Your task to perform on an android device: turn off sleep mode Image 0: 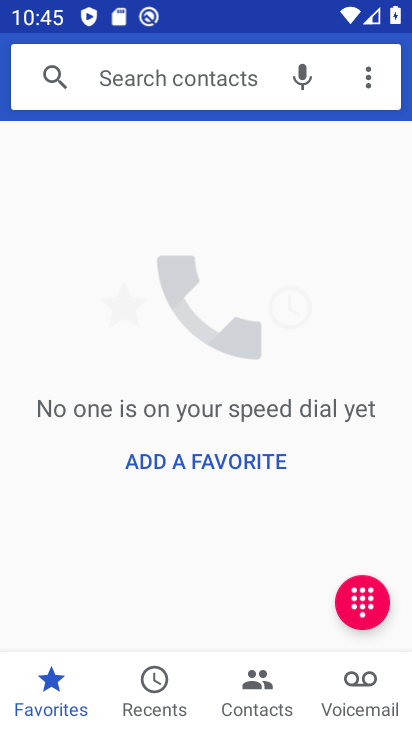
Step 0: press home button
Your task to perform on an android device: turn off sleep mode Image 1: 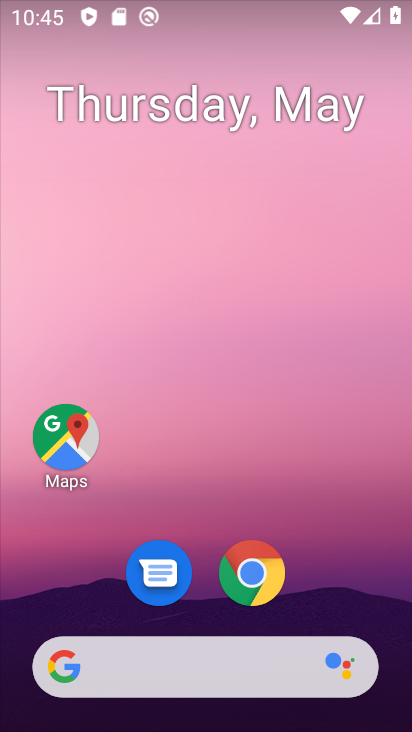
Step 1: drag from (74, 627) to (200, 158)
Your task to perform on an android device: turn off sleep mode Image 2: 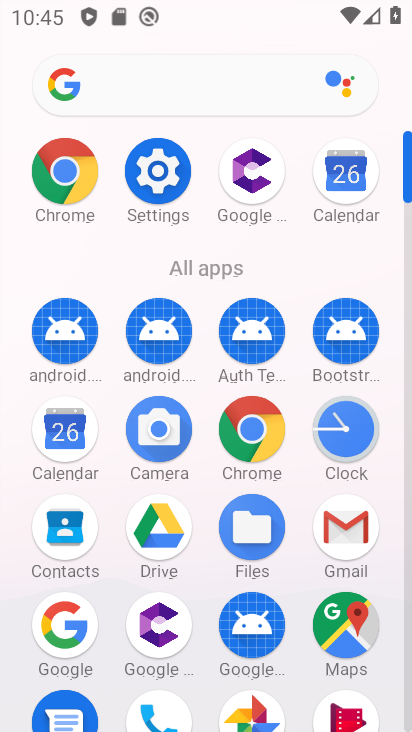
Step 2: drag from (119, 605) to (186, 379)
Your task to perform on an android device: turn off sleep mode Image 3: 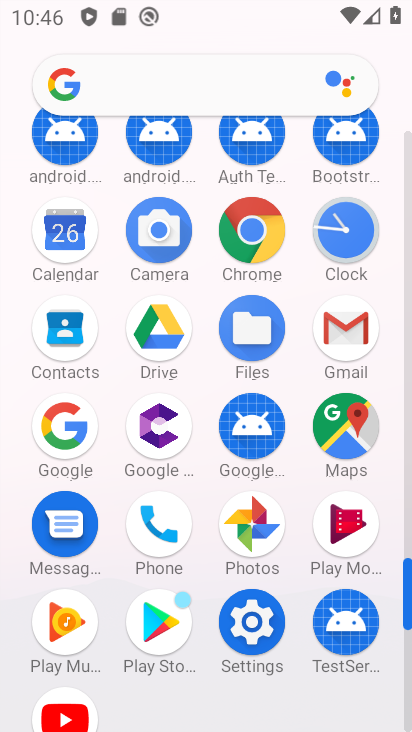
Step 3: click (262, 629)
Your task to perform on an android device: turn off sleep mode Image 4: 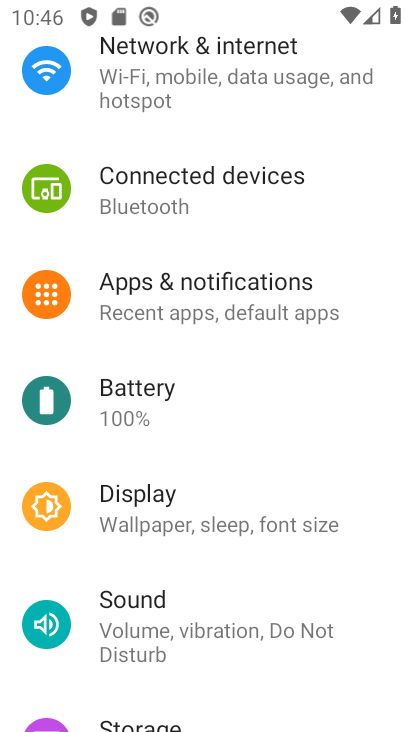
Step 4: click (155, 528)
Your task to perform on an android device: turn off sleep mode Image 5: 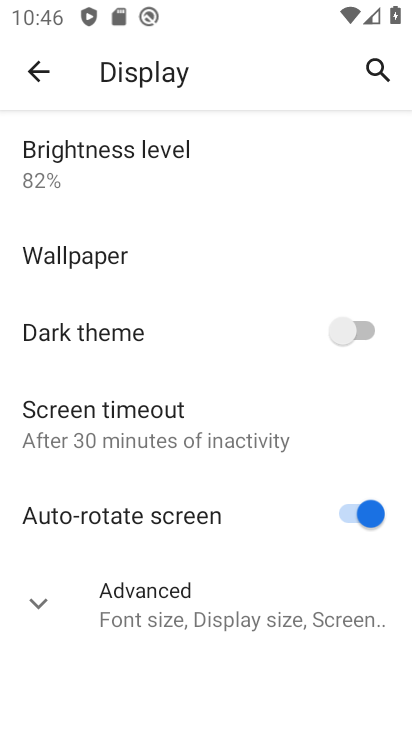
Step 5: click (155, 628)
Your task to perform on an android device: turn off sleep mode Image 6: 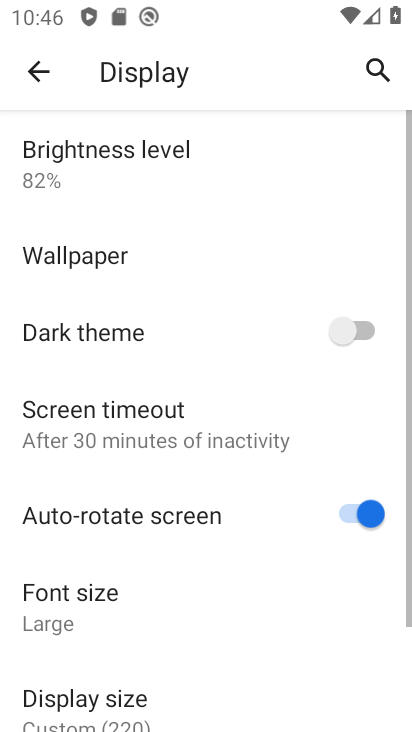
Step 6: task complete